Your task to perform on an android device: add a label to a message in the gmail app Image 0: 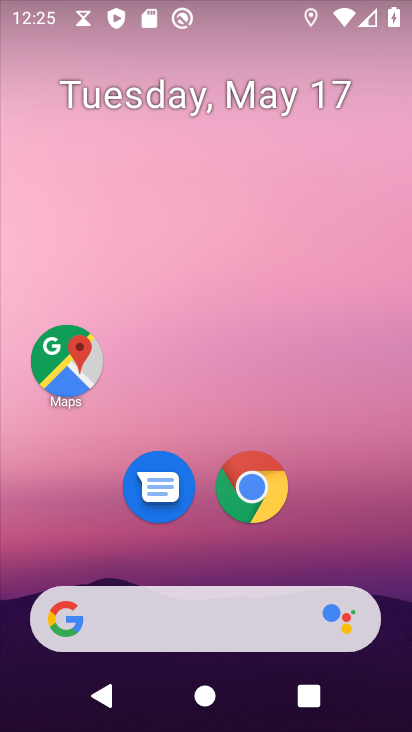
Step 0: drag from (361, 517) to (313, 35)
Your task to perform on an android device: add a label to a message in the gmail app Image 1: 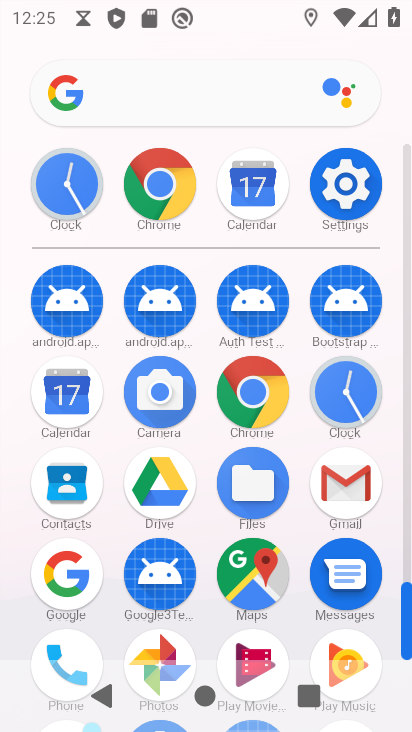
Step 1: drag from (0, 574) to (0, 285)
Your task to perform on an android device: add a label to a message in the gmail app Image 2: 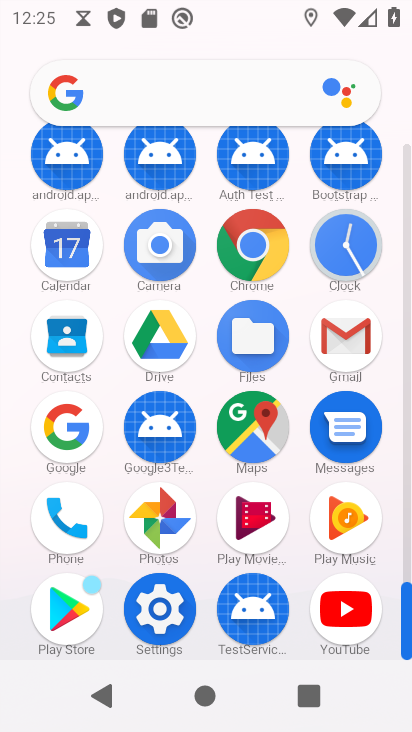
Step 2: click (341, 329)
Your task to perform on an android device: add a label to a message in the gmail app Image 3: 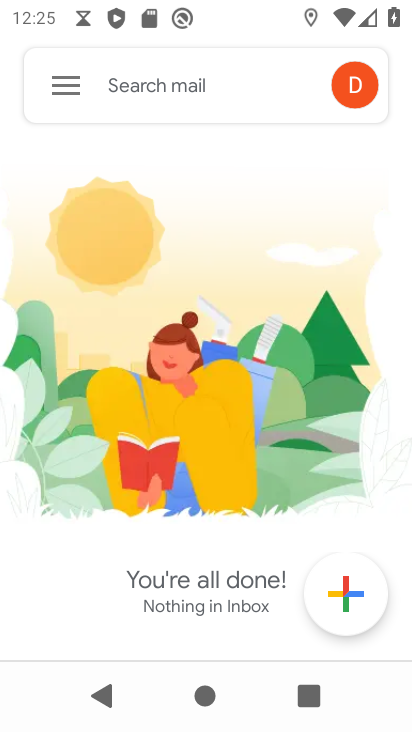
Step 3: click (59, 66)
Your task to perform on an android device: add a label to a message in the gmail app Image 4: 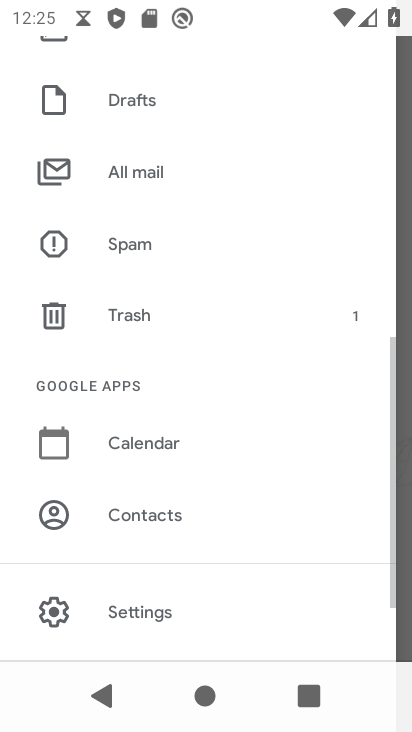
Step 4: click (156, 176)
Your task to perform on an android device: add a label to a message in the gmail app Image 5: 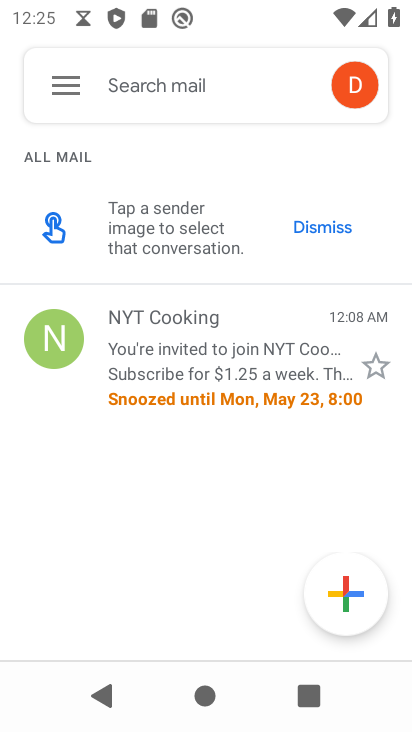
Step 5: click (206, 339)
Your task to perform on an android device: add a label to a message in the gmail app Image 6: 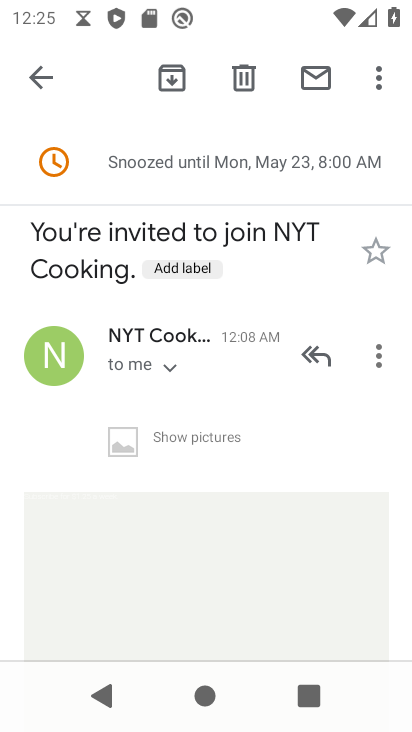
Step 6: click (202, 272)
Your task to perform on an android device: add a label to a message in the gmail app Image 7: 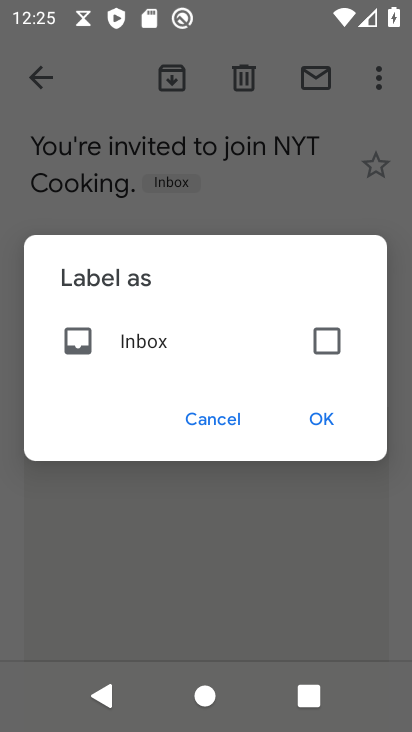
Step 7: click (329, 340)
Your task to perform on an android device: add a label to a message in the gmail app Image 8: 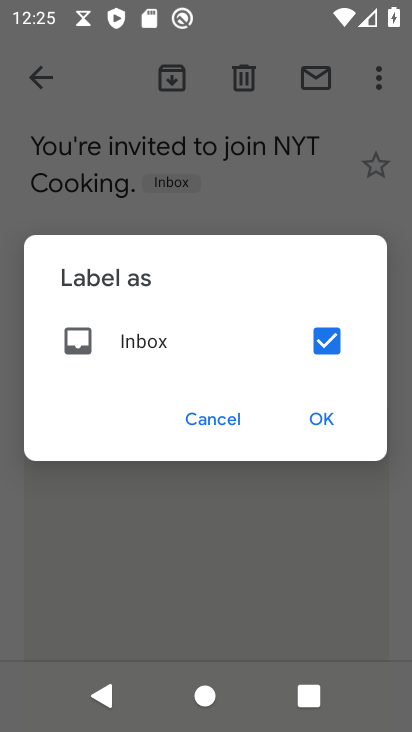
Step 8: click (316, 417)
Your task to perform on an android device: add a label to a message in the gmail app Image 9: 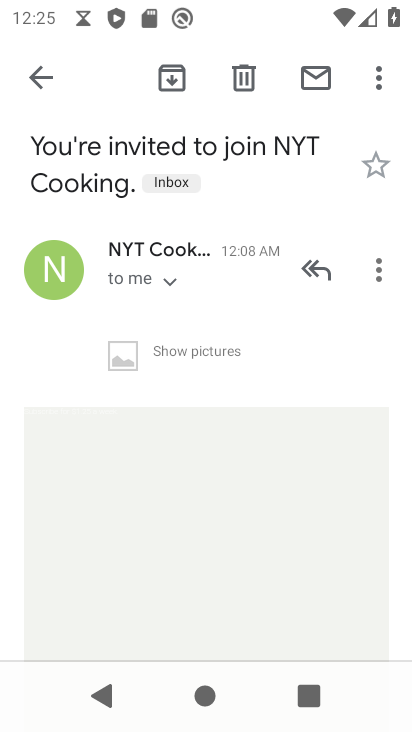
Step 9: task complete